Your task to perform on an android device: What is the recent news? Image 0: 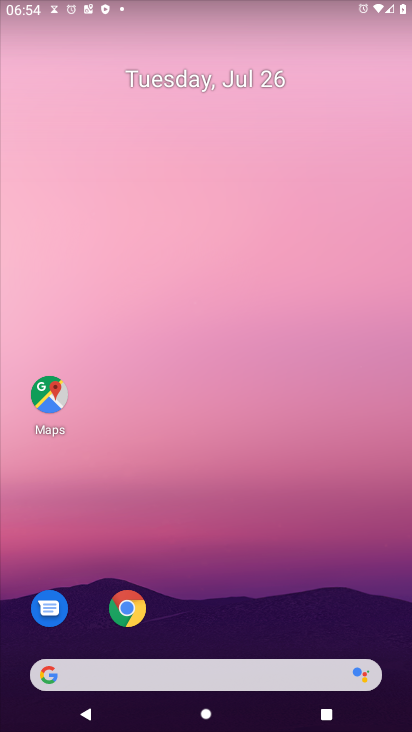
Step 0: press home button
Your task to perform on an android device: What is the recent news? Image 1: 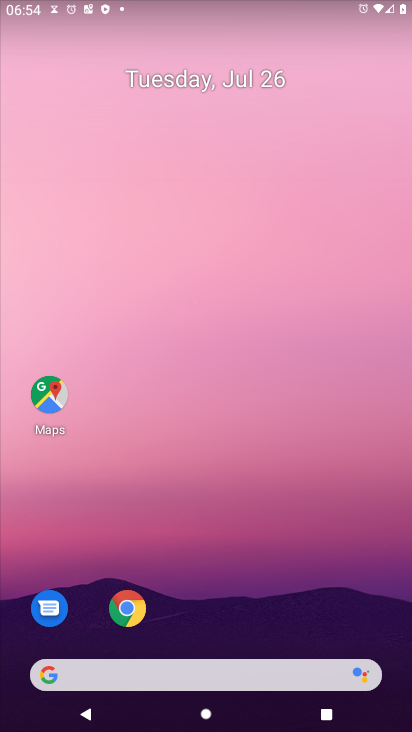
Step 1: click (66, 676)
Your task to perform on an android device: What is the recent news? Image 2: 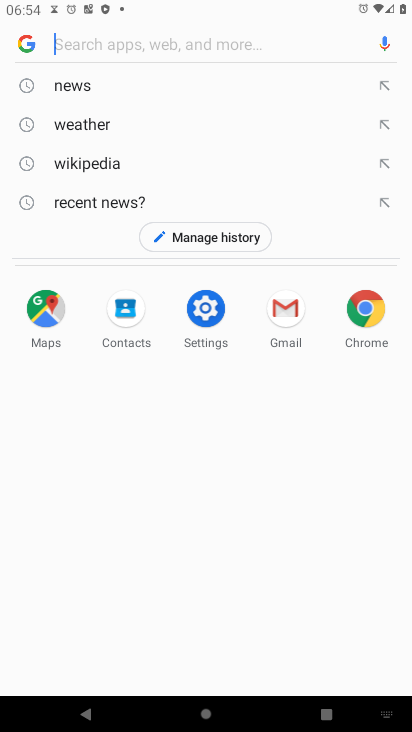
Step 2: click (90, 201)
Your task to perform on an android device: What is the recent news? Image 3: 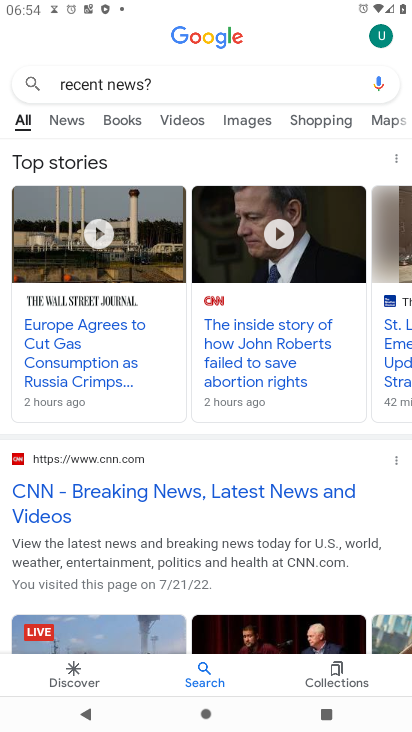
Step 3: task complete